Your task to perform on an android device: Show me the alarms in the clock app Image 0: 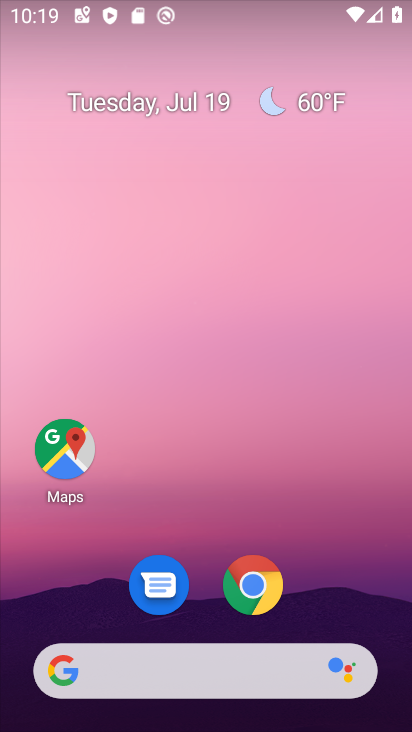
Step 0: drag from (222, 502) to (223, 28)
Your task to perform on an android device: Show me the alarms in the clock app Image 1: 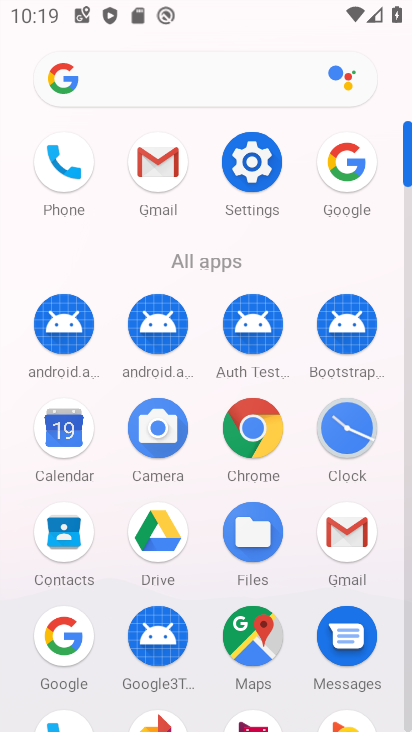
Step 1: click (344, 427)
Your task to perform on an android device: Show me the alarms in the clock app Image 2: 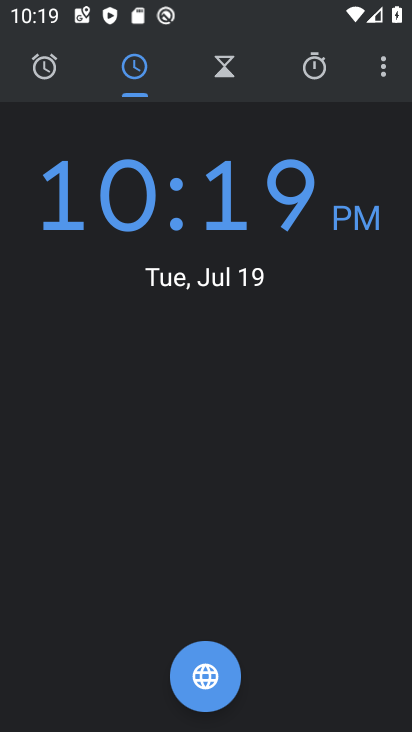
Step 2: click (55, 67)
Your task to perform on an android device: Show me the alarms in the clock app Image 3: 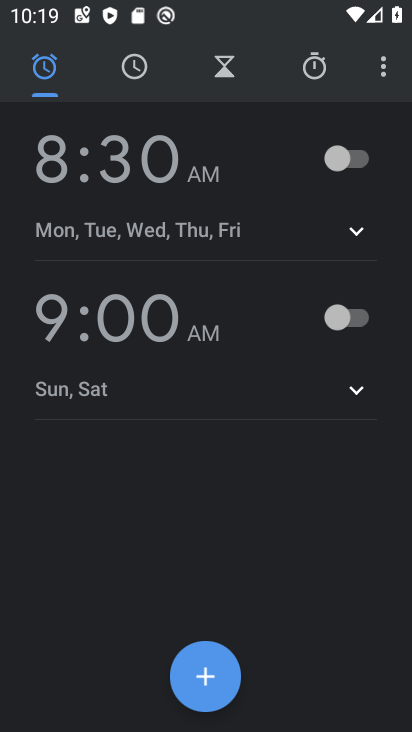
Step 3: task complete